Your task to perform on an android device: Toggle the flashlight Image 0: 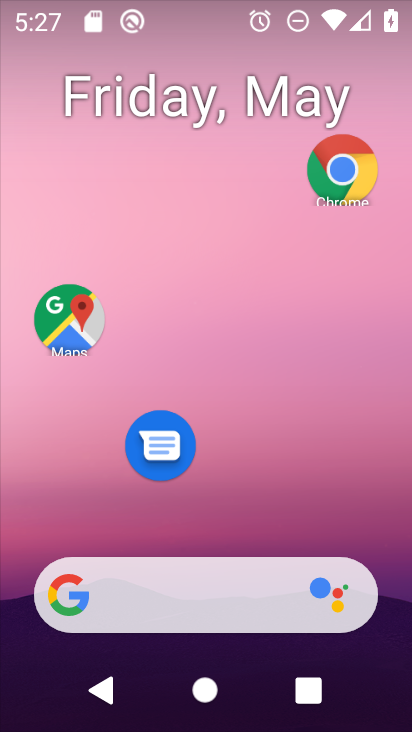
Step 0: drag from (242, 519) to (274, 91)
Your task to perform on an android device: Toggle the flashlight Image 1: 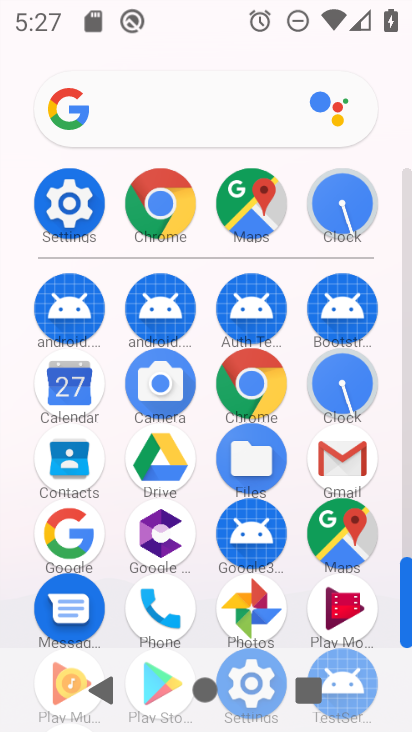
Step 1: task complete